Your task to perform on an android device: allow cookies in the chrome app Image 0: 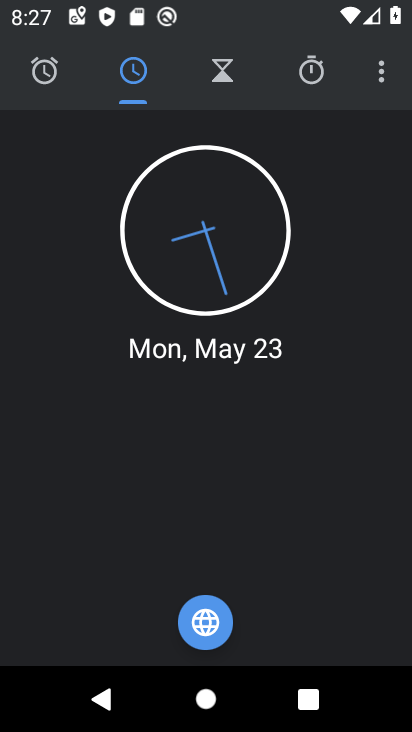
Step 0: press home button
Your task to perform on an android device: allow cookies in the chrome app Image 1: 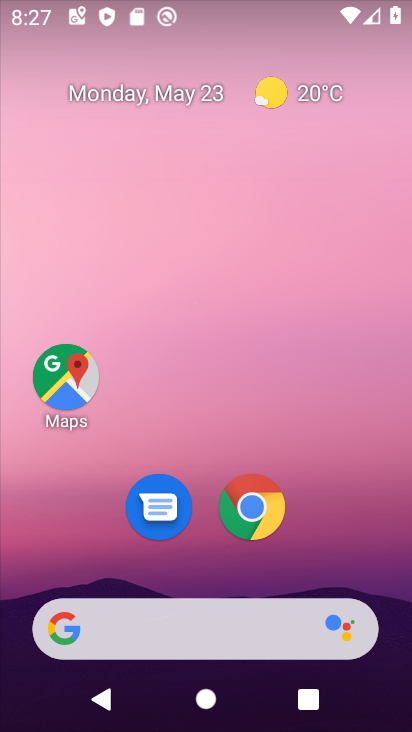
Step 1: click (252, 512)
Your task to perform on an android device: allow cookies in the chrome app Image 2: 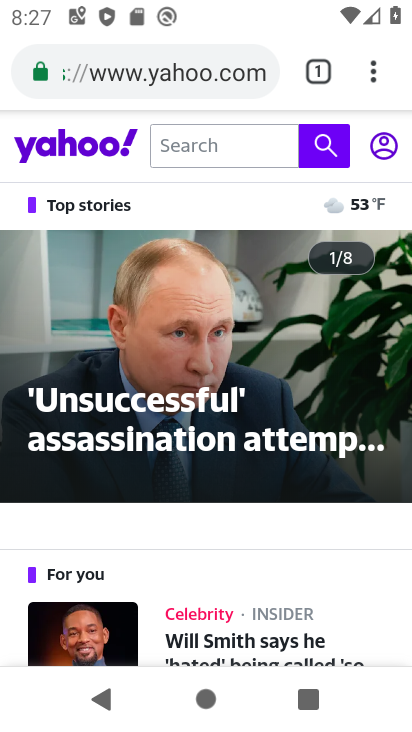
Step 2: click (378, 74)
Your task to perform on an android device: allow cookies in the chrome app Image 3: 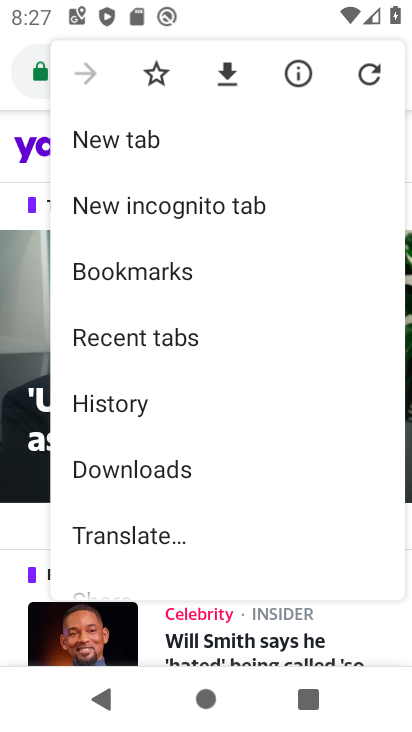
Step 3: drag from (209, 450) to (208, 192)
Your task to perform on an android device: allow cookies in the chrome app Image 4: 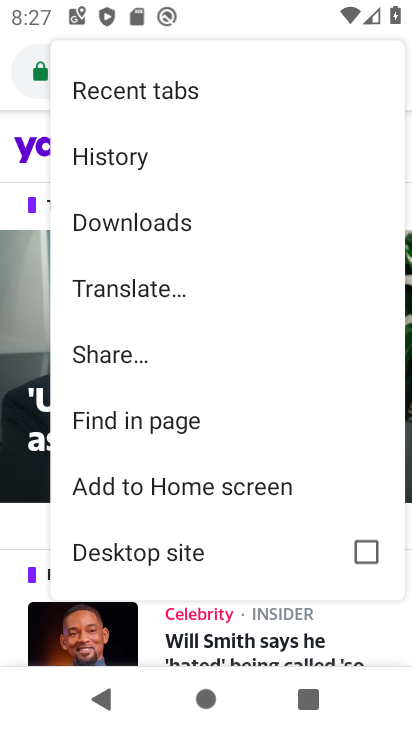
Step 4: drag from (188, 492) to (191, 181)
Your task to perform on an android device: allow cookies in the chrome app Image 5: 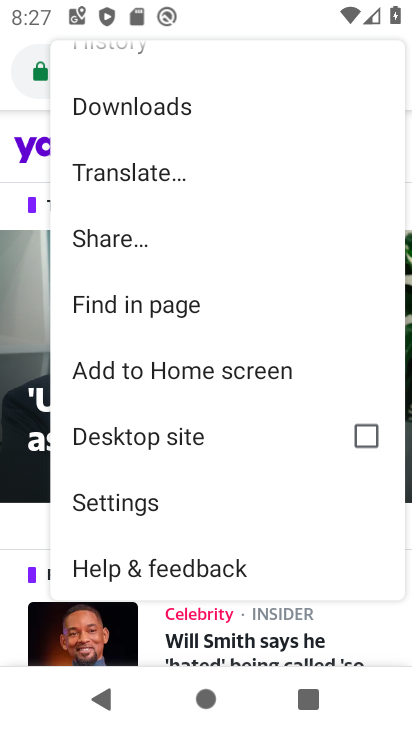
Step 5: click (117, 509)
Your task to perform on an android device: allow cookies in the chrome app Image 6: 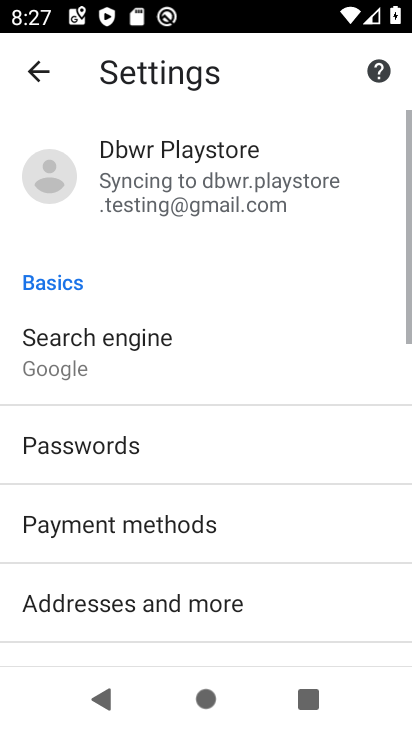
Step 6: drag from (175, 592) to (190, 231)
Your task to perform on an android device: allow cookies in the chrome app Image 7: 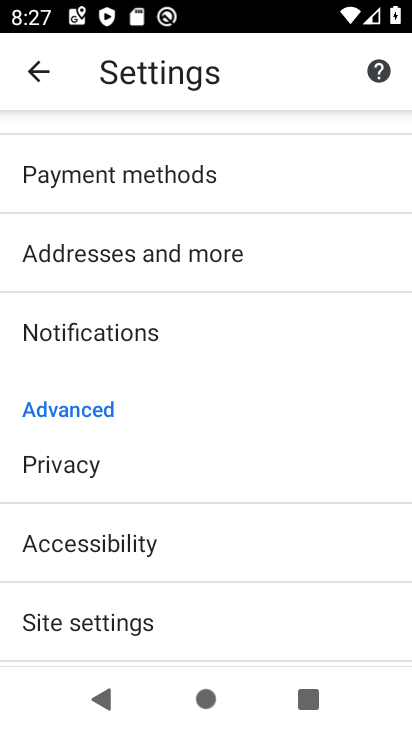
Step 7: drag from (219, 414) to (198, 191)
Your task to perform on an android device: allow cookies in the chrome app Image 8: 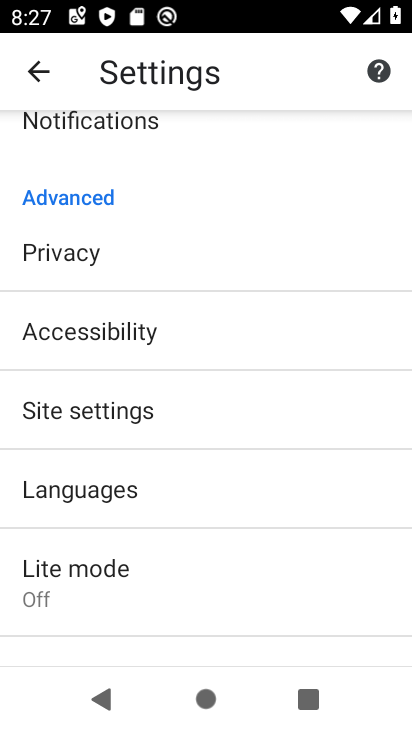
Step 8: click (120, 412)
Your task to perform on an android device: allow cookies in the chrome app Image 9: 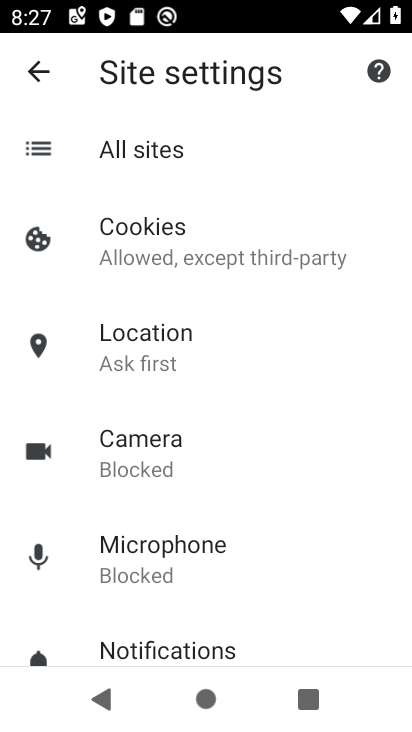
Step 9: click (159, 249)
Your task to perform on an android device: allow cookies in the chrome app Image 10: 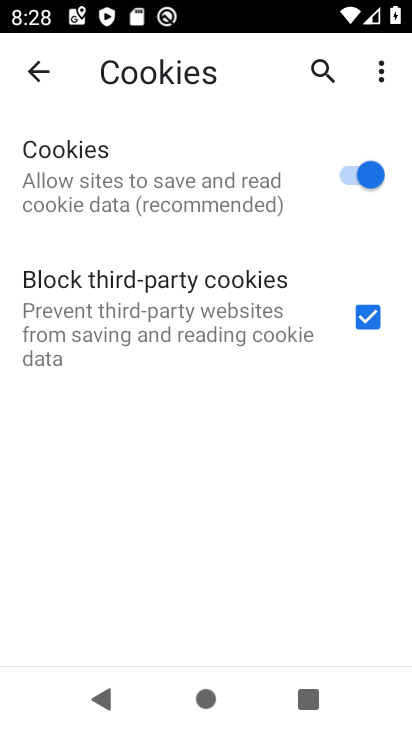
Step 10: task complete